Your task to perform on an android device: turn off notifications in google photos Image 0: 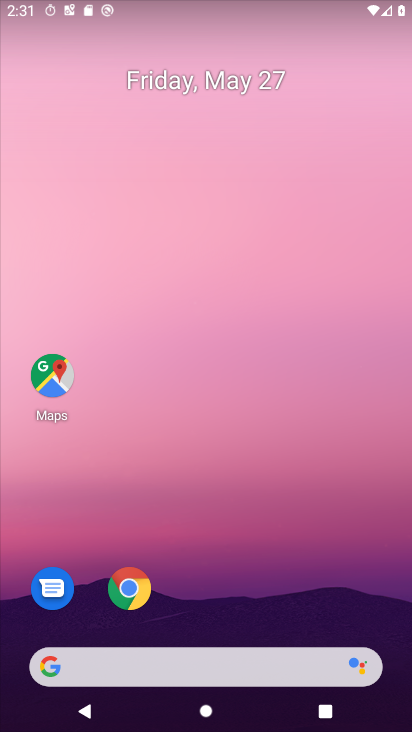
Step 0: drag from (249, 450) to (234, 5)
Your task to perform on an android device: turn off notifications in google photos Image 1: 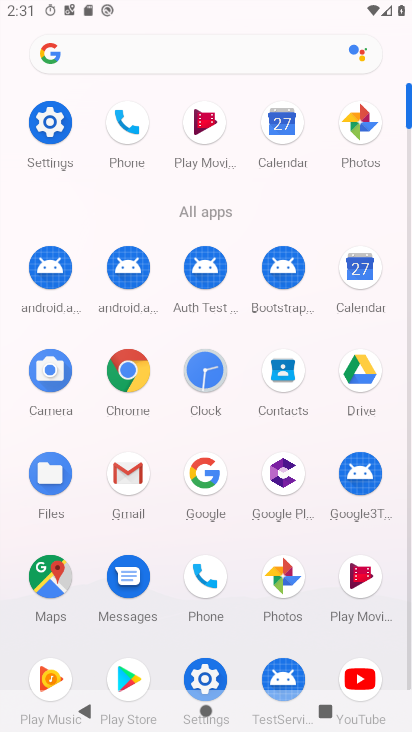
Step 1: click (358, 132)
Your task to perform on an android device: turn off notifications in google photos Image 2: 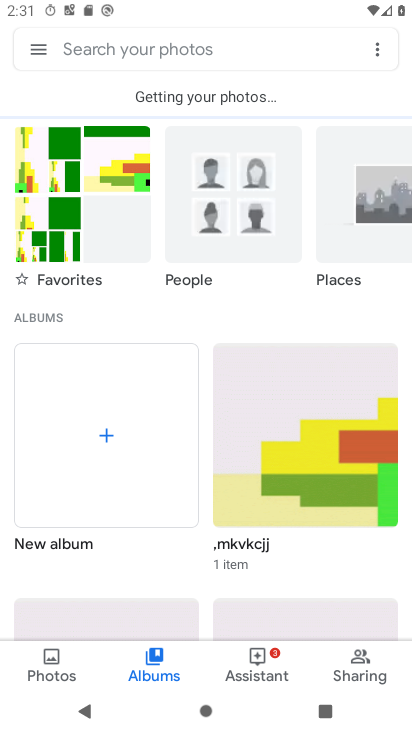
Step 2: click (37, 53)
Your task to perform on an android device: turn off notifications in google photos Image 3: 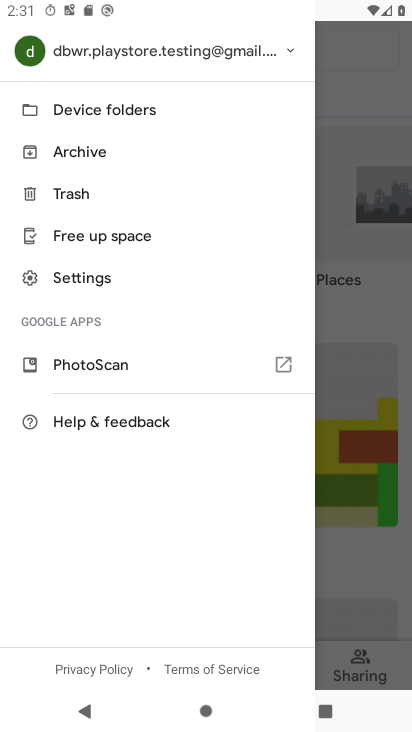
Step 3: click (87, 282)
Your task to perform on an android device: turn off notifications in google photos Image 4: 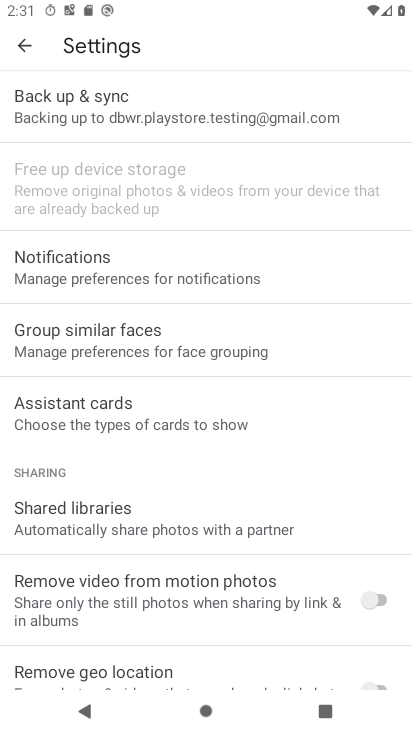
Step 4: click (124, 280)
Your task to perform on an android device: turn off notifications in google photos Image 5: 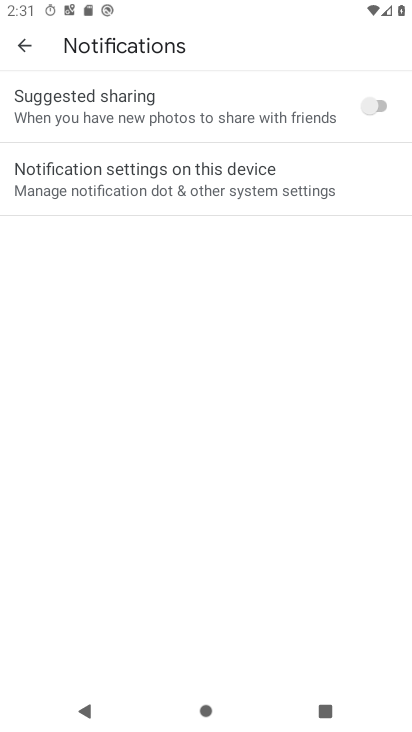
Step 5: click (257, 193)
Your task to perform on an android device: turn off notifications in google photos Image 6: 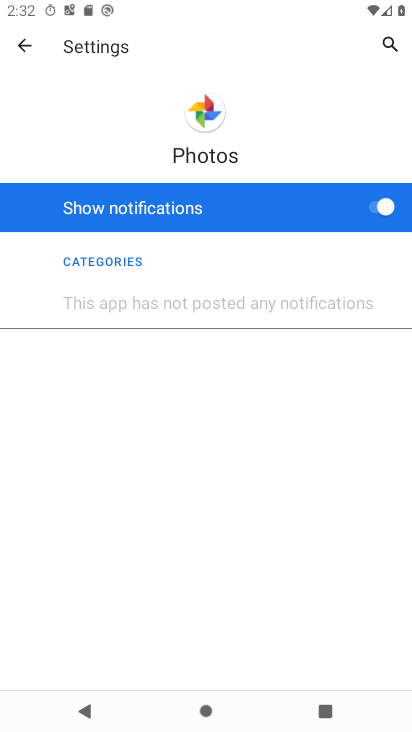
Step 6: click (390, 212)
Your task to perform on an android device: turn off notifications in google photos Image 7: 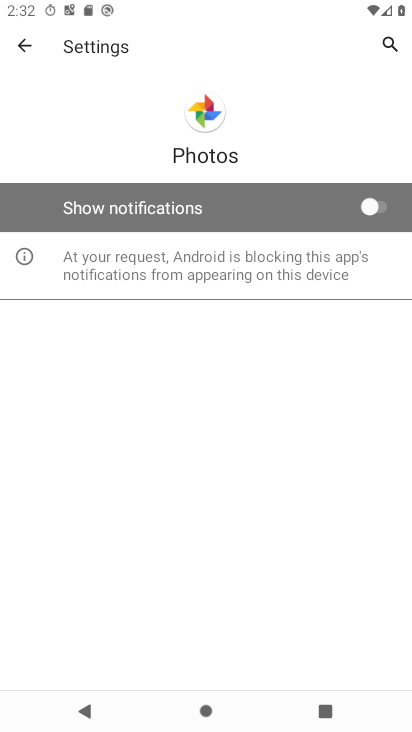
Step 7: task complete